Your task to perform on an android device: change the clock display to analog Image 0: 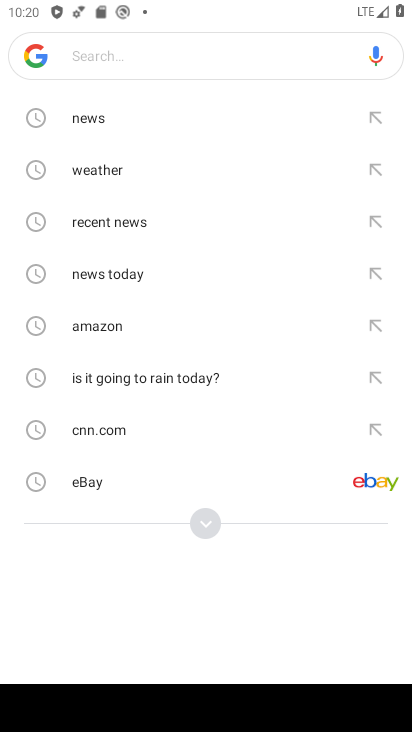
Step 0: press home button
Your task to perform on an android device: change the clock display to analog Image 1: 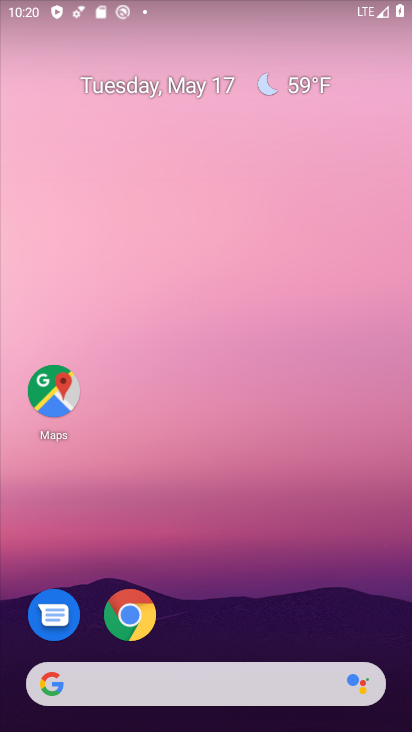
Step 1: drag from (180, 670) to (398, 46)
Your task to perform on an android device: change the clock display to analog Image 2: 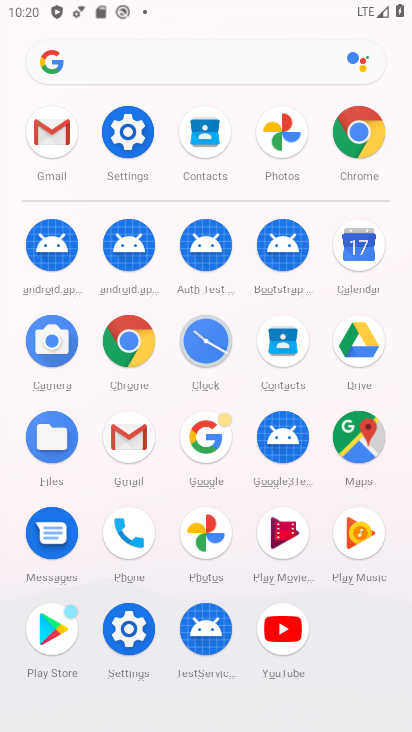
Step 2: click (215, 335)
Your task to perform on an android device: change the clock display to analog Image 3: 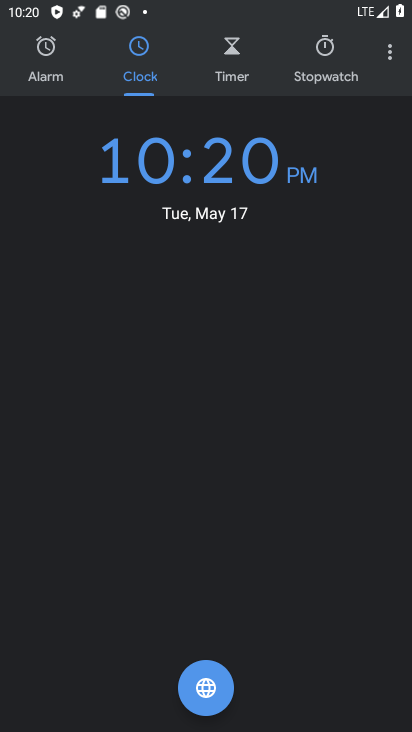
Step 3: click (392, 59)
Your task to perform on an android device: change the clock display to analog Image 4: 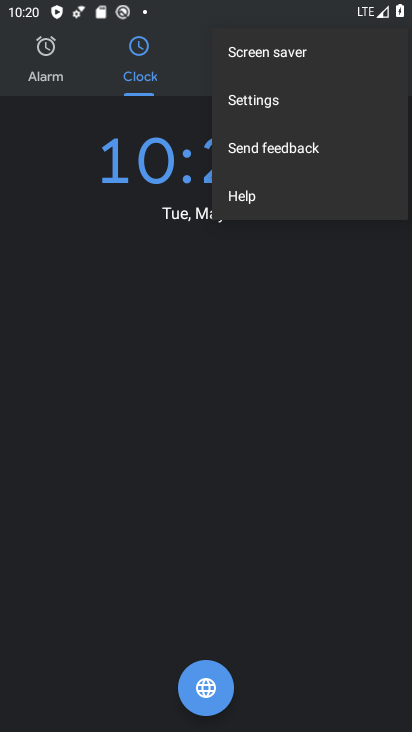
Step 4: click (266, 91)
Your task to perform on an android device: change the clock display to analog Image 5: 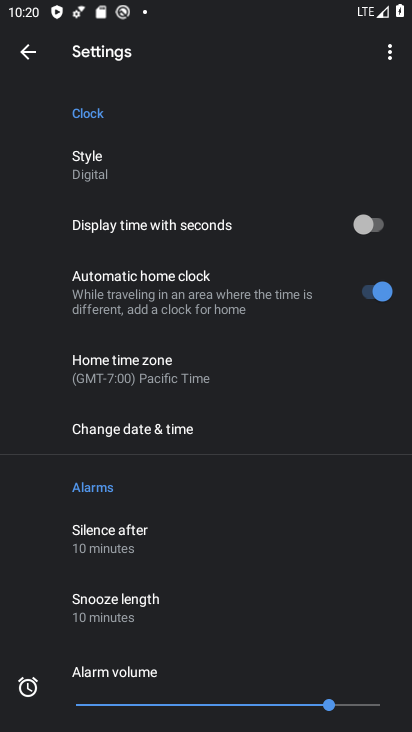
Step 5: click (97, 164)
Your task to perform on an android device: change the clock display to analog Image 6: 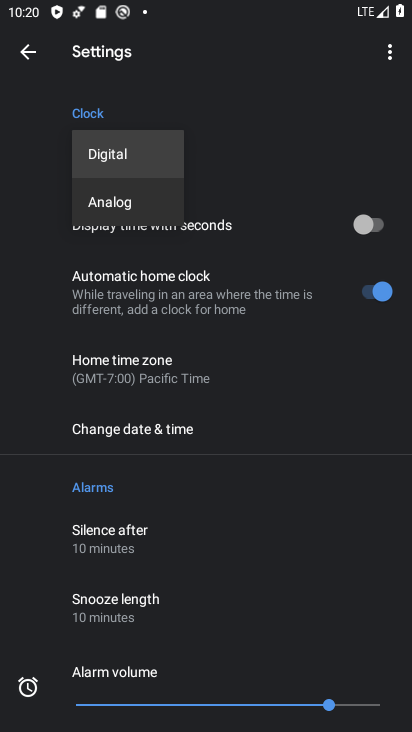
Step 6: click (144, 203)
Your task to perform on an android device: change the clock display to analog Image 7: 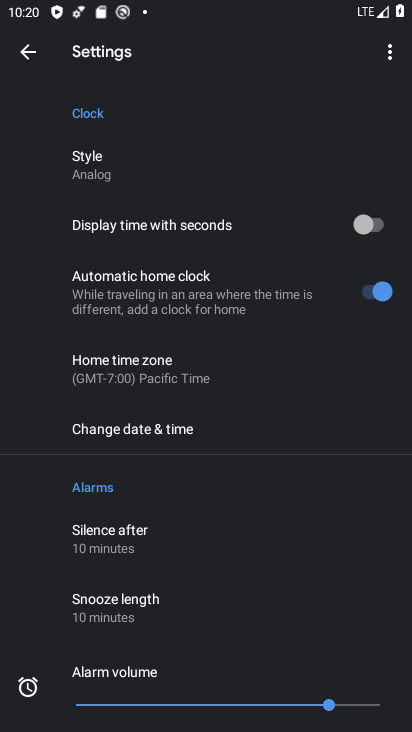
Step 7: task complete